Your task to perform on an android device: turn on wifi Image 0: 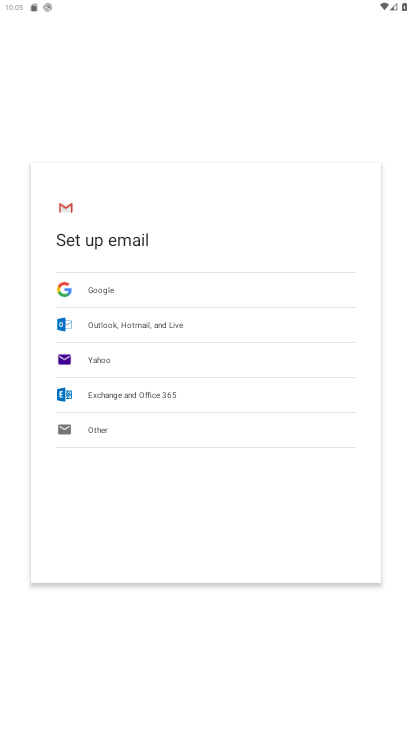
Step 0: press home button
Your task to perform on an android device: turn on wifi Image 1: 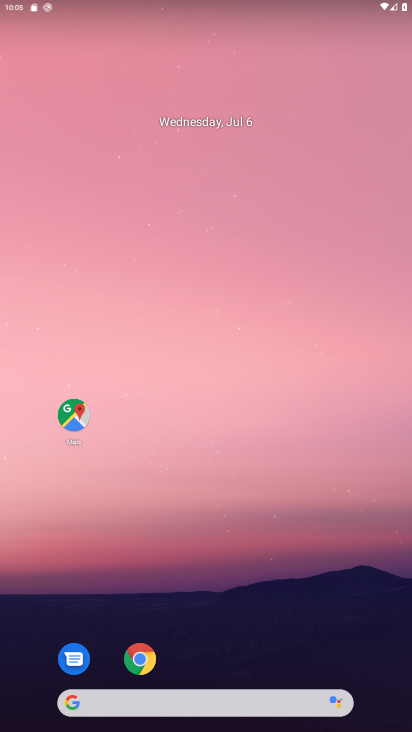
Step 1: drag from (232, 620) to (255, 162)
Your task to perform on an android device: turn on wifi Image 2: 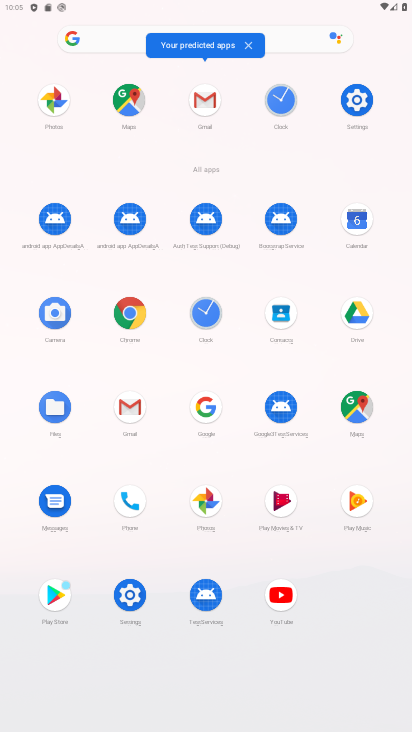
Step 2: click (359, 91)
Your task to perform on an android device: turn on wifi Image 3: 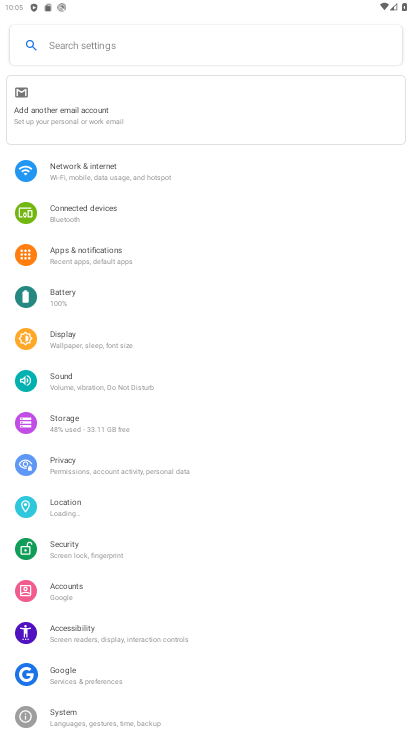
Step 3: click (139, 172)
Your task to perform on an android device: turn on wifi Image 4: 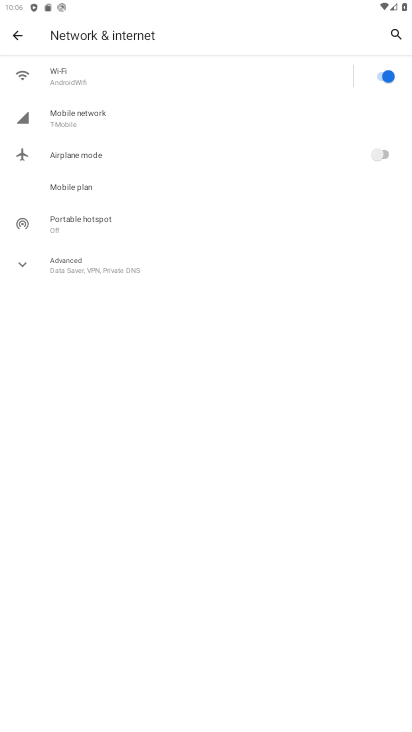
Step 4: task complete